Your task to perform on an android device: remove spam from my inbox in the gmail app Image 0: 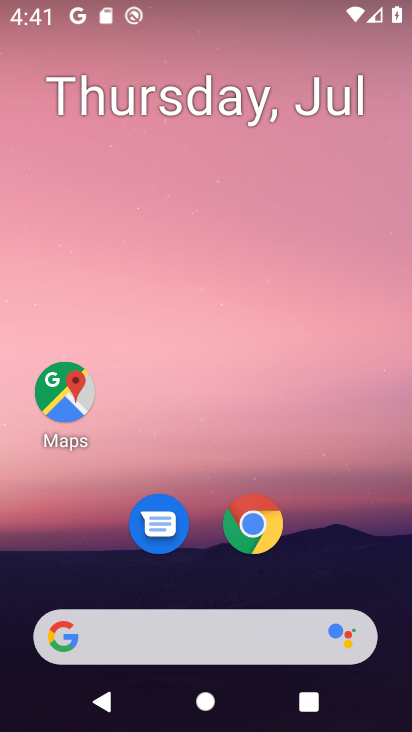
Step 0: click (72, 406)
Your task to perform on an android device: remove spam from my inbox in the gmail app Image 1: 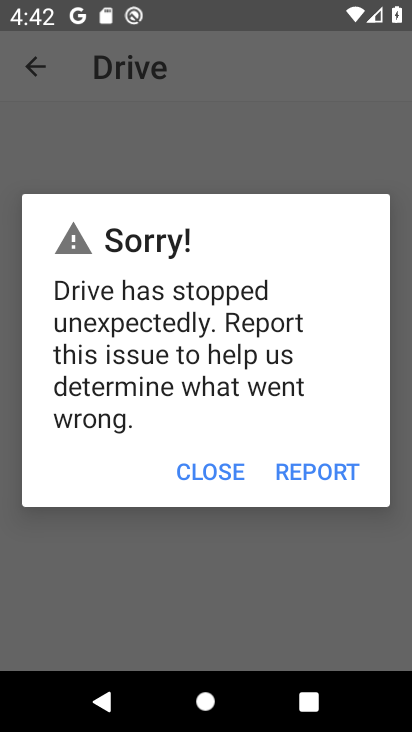
Step 1: press home button
Your task to perform on an android device: remove spam from my inbox in the gmail app Image 2: 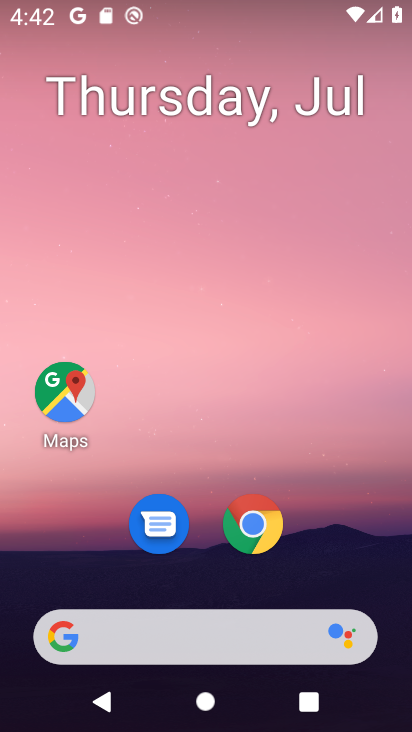
Step 2: drag from (196, 633) to (126, 319)
Your task to perform on an android device: remove spam from my inbox in the gmail app Image 3: 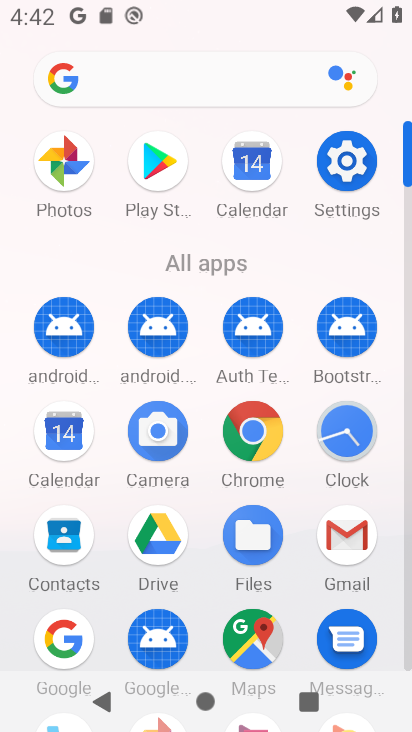
Step 3: click (340, 525)
Your task to perform on an android device: remove spam from my inbox in the gmail app Image 4: 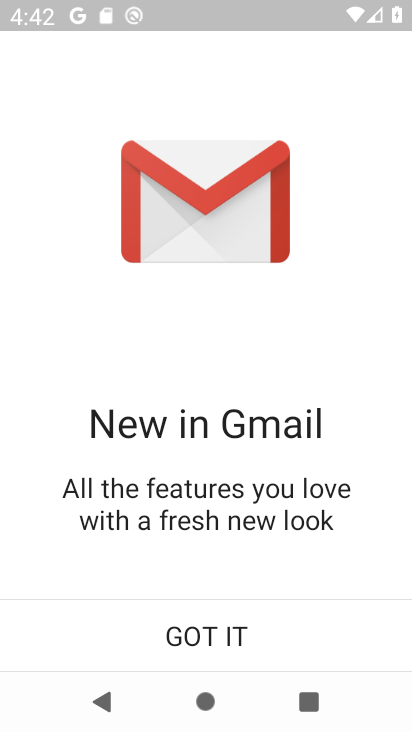
Step 4: click (216, 628)
Your task to perform on an android device: remove spam from my inbox in the gmail app Image 5: 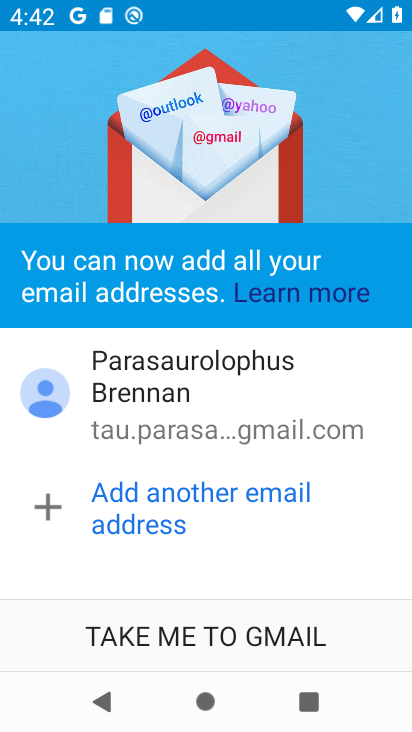
Step 5: click (204, 627)
Your task to perform on an android device: remove spam from my inbox in the gmail app Image 6: 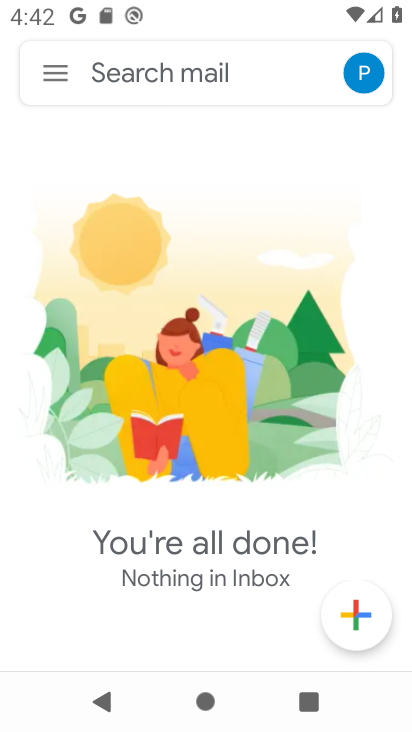
Step 6: click (64, 73)
Your task to perform on an android device: remove spam from my inbox in the gmail app Image 7: 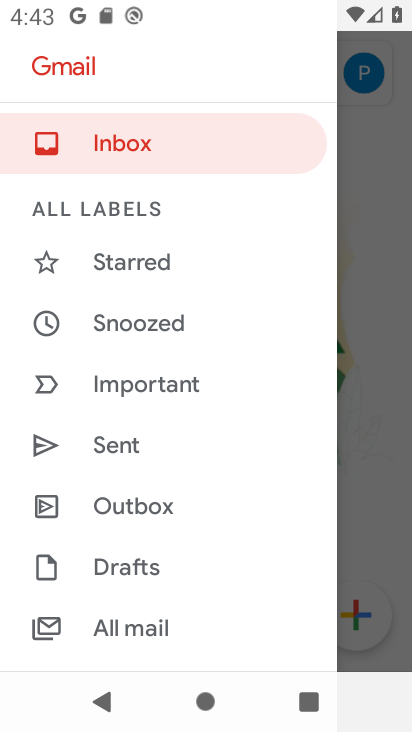
Step 7: click (82, 147)
Your task to perform on an android device: remove spam from my inbox in the gmail app Image 8: 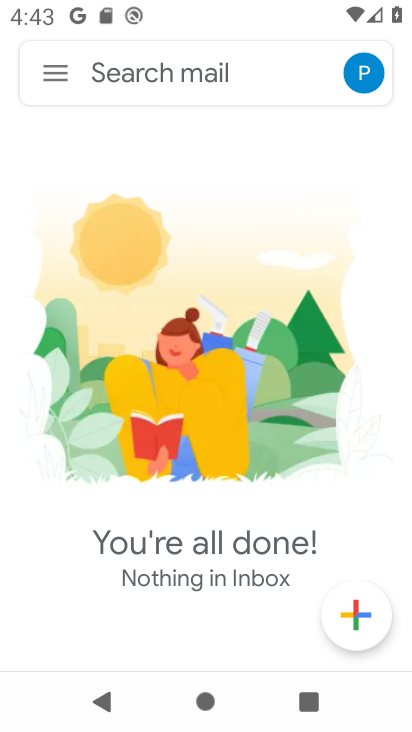
Step 8: task complete